Your task to perform on an android device: visit the assistant section in the google photos Image 0: 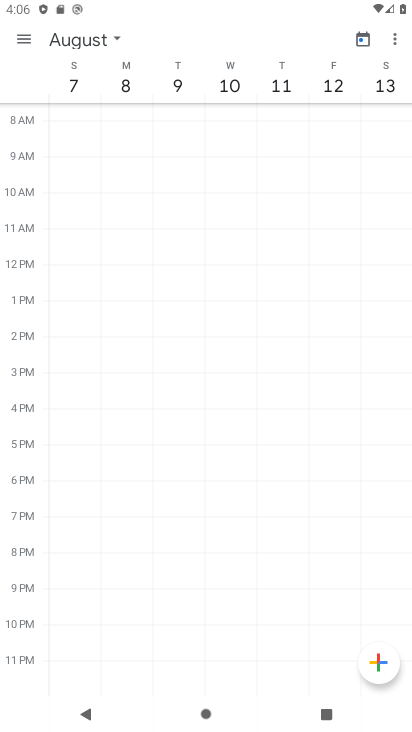
Step 0: press home button
Your task to perform on an android device: visit the assistant section in the google photos Image 1: 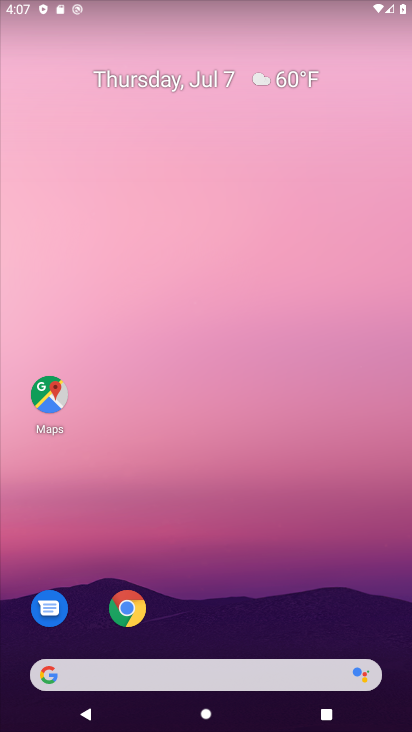
Step 1: drag from (315, 640) to (273, 291)
Your task to perform on an android device: visit the assistant section in the google photos Image 2: 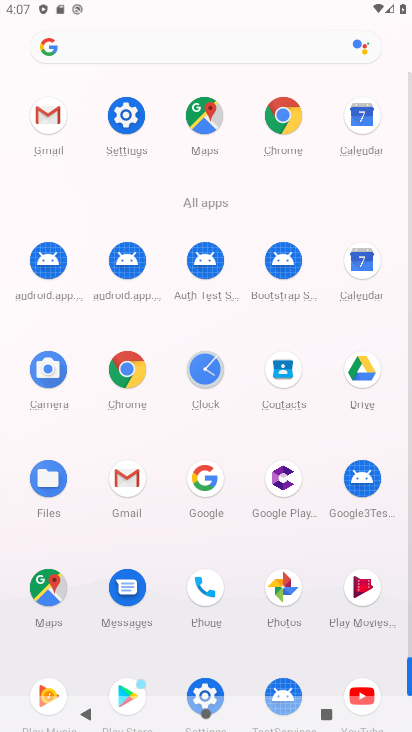
Step 2: click (284, 579)
Your task to perform on an android device: visit the assistant section in the google photos Image 3: 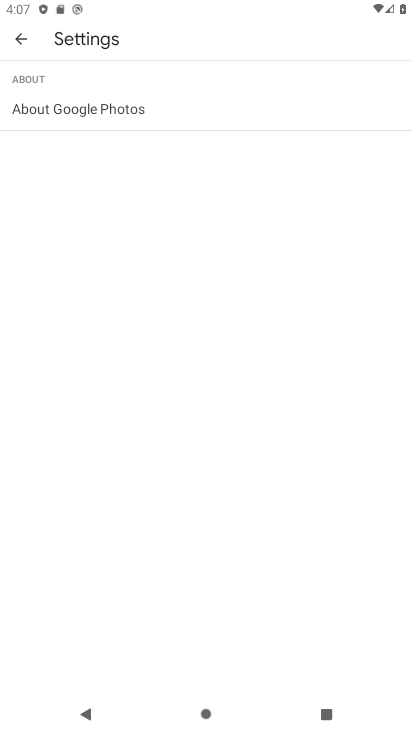
Step 3: click (17, 43)
Your task to perform on an android device: visit the assistant section in the google photos Image 4: 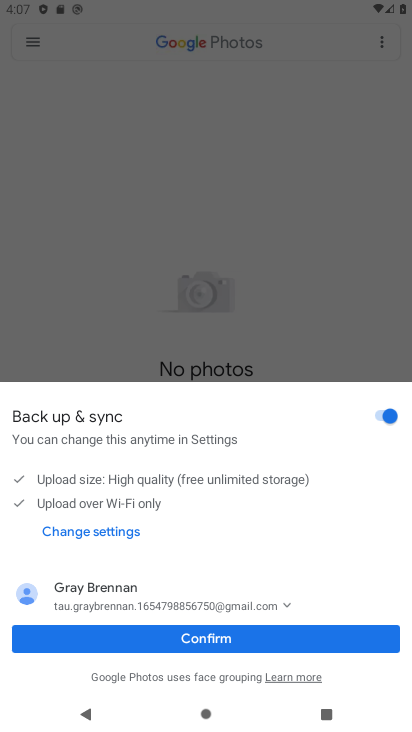
Step 4: click (297, 649)
Your task to perform on an android device: visit the assistant section in the google photos Image 5: 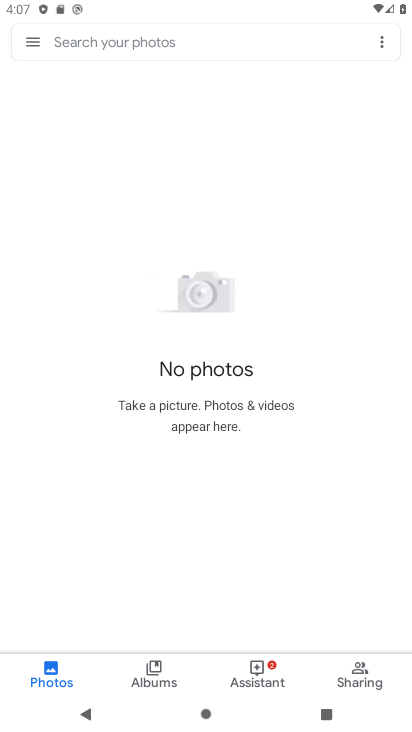
Step 5: click (244, 658)
Your task to perform on an android device: visit the assistant section in the google photos Image 6: 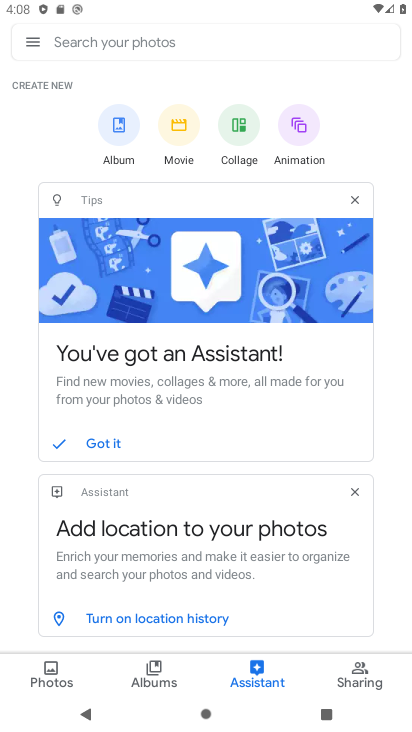
Step 6: task complete